Your task to perform on an android device: Open Chrome and go to settings Image 0: 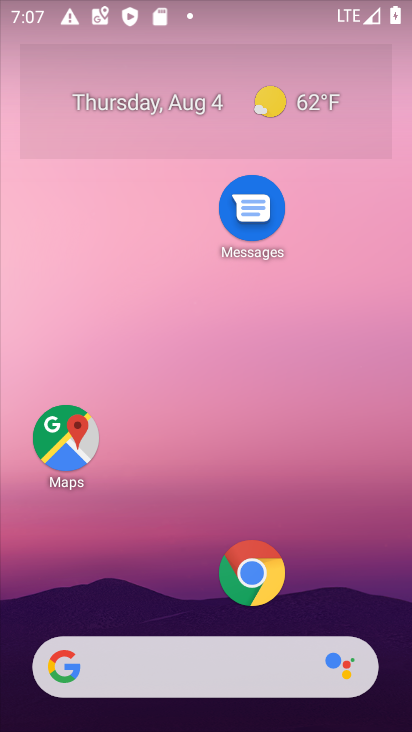
Step 0: press home button
Your task to perform on an android device: Open Chrome and go to settings Image 1: 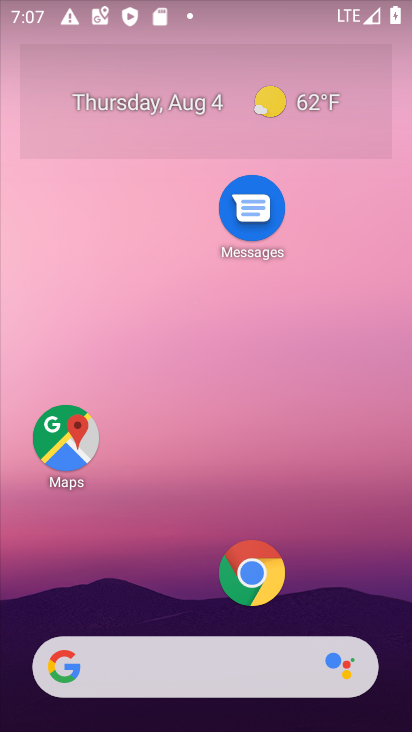
Step 1: drag from (153, 606) to (123, 149)
Your task to perform on an android device: Open Chrome and go to settings Image 2: 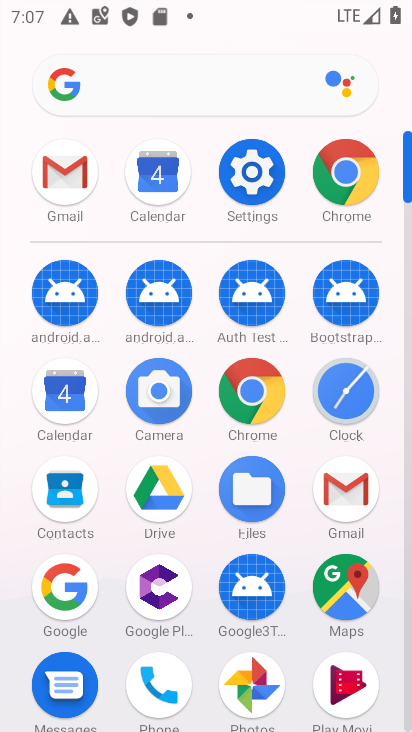
Step 2: click (343, 173)
Your task to perform on an android device: Open Chrome and go to settings Image 3: 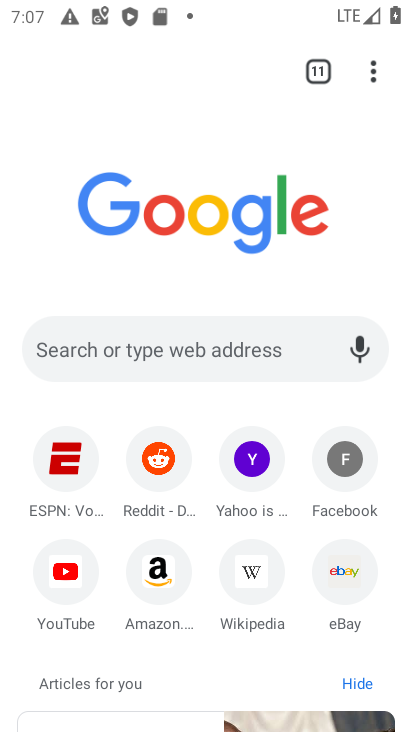
Step 3: task complete